Your task to perform on an android device: toggle wifi Image 0: 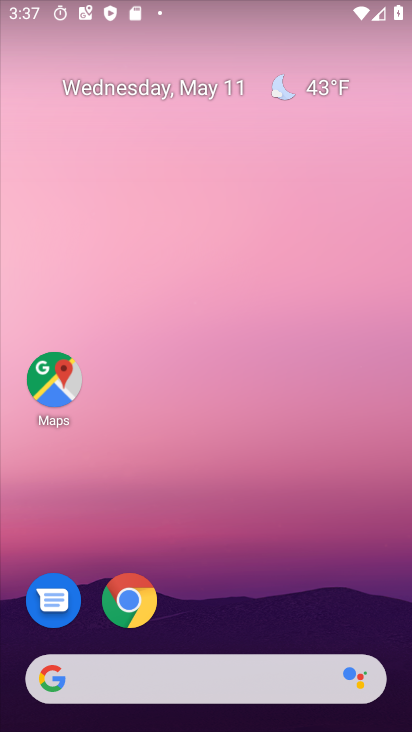
Step 0: drag from (354, 617) to (381, 8)
Your task to perform on an android device: toggle wifi Image 1: 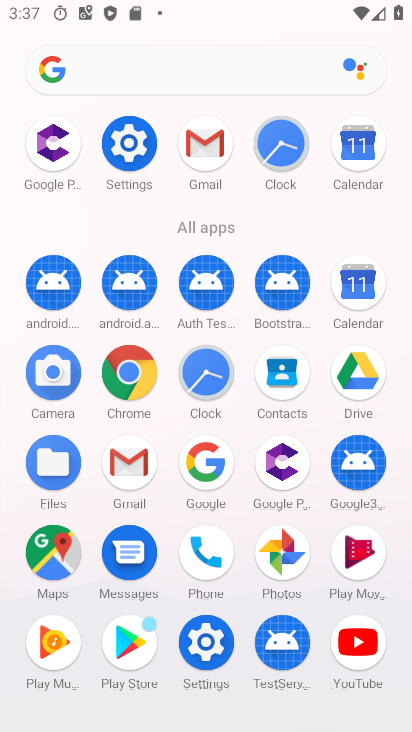
Step 1: click (129, 150)
Your task to perform on an android device: toggle wifi Image 2: 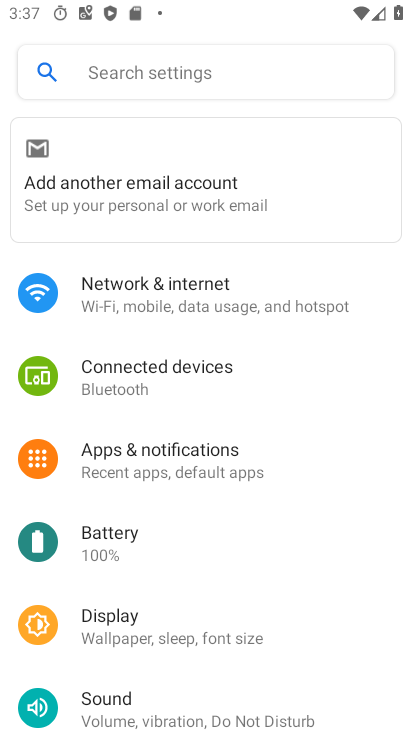
Step 2: click (144, 291)
Your task to perform on an android device: toggle wifi Image 3: 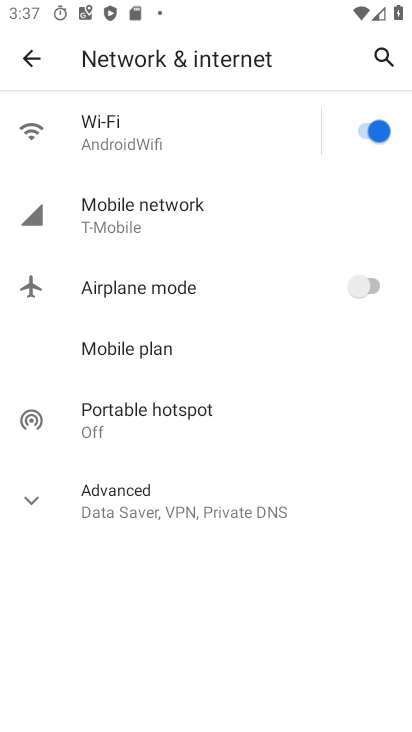
Step 3: click (374, 136)
Your task to perform on an android device: toggle wifi Image 4: 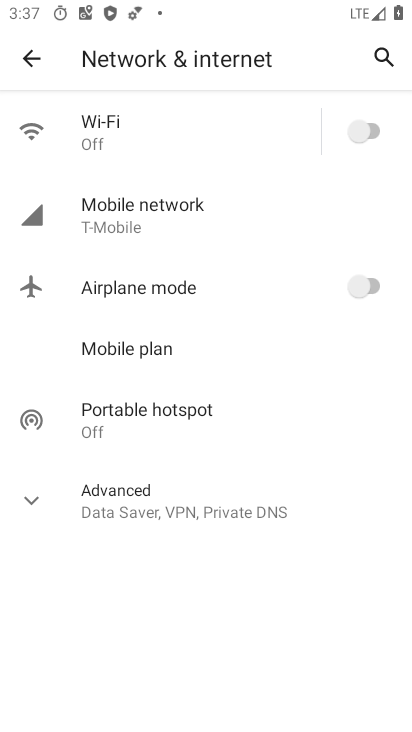
Step 4: task complete